Your task to perform on an android device: Search for sushi restaurants on Maps Image 0: 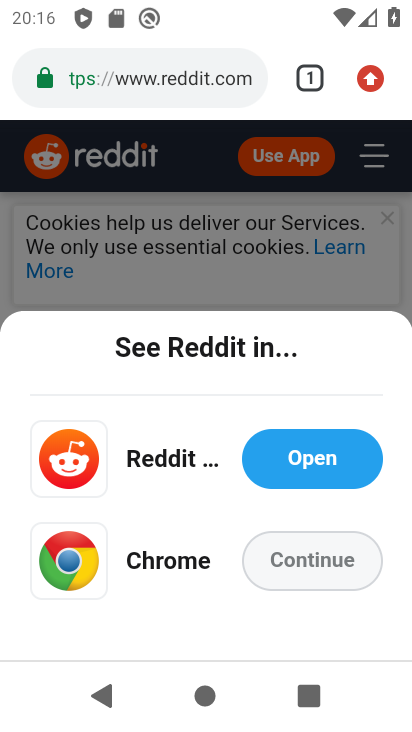
Step 0: press home button
Your task to perform on an android device: Search for sushi restaurants on Maps Image 1: 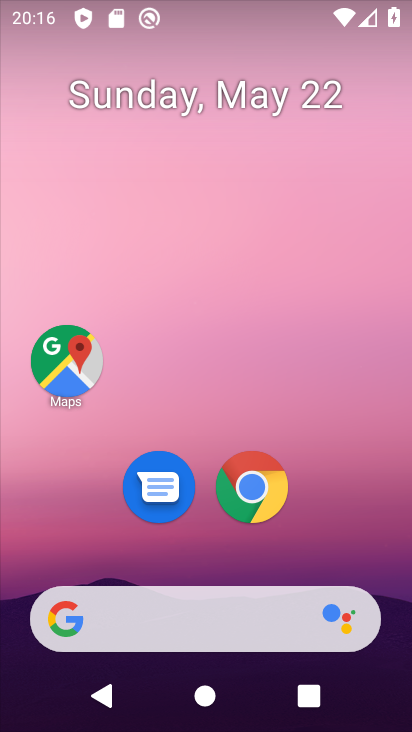
Step 1: click (69, 373)
Your task to perform on an android device: Search for sushi restaurants on Maps Image 2: 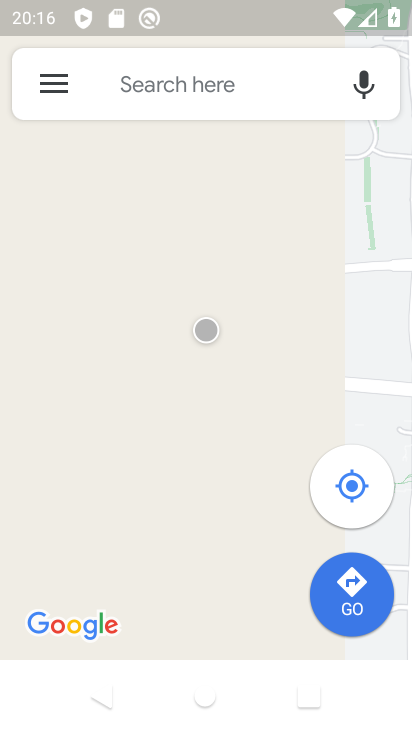
Step 2: click (141, 81)
Your task to perform on an android device: Search for sushi restaurants on Maps Image 3: 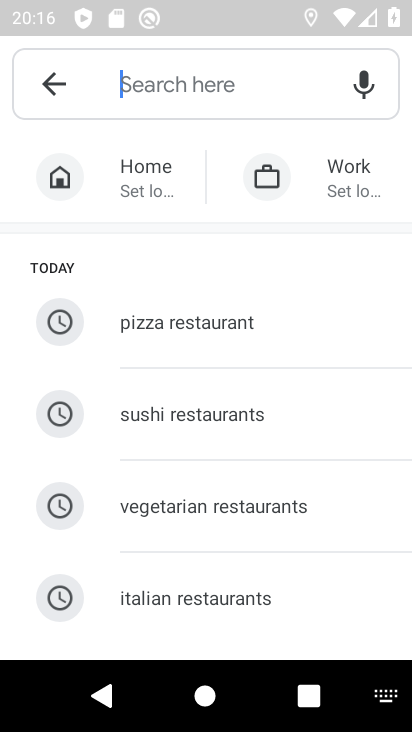
Step 3: click (98, 421)
Your task to perform on an android device: Search for sushi restaurants on Maps Image 4: 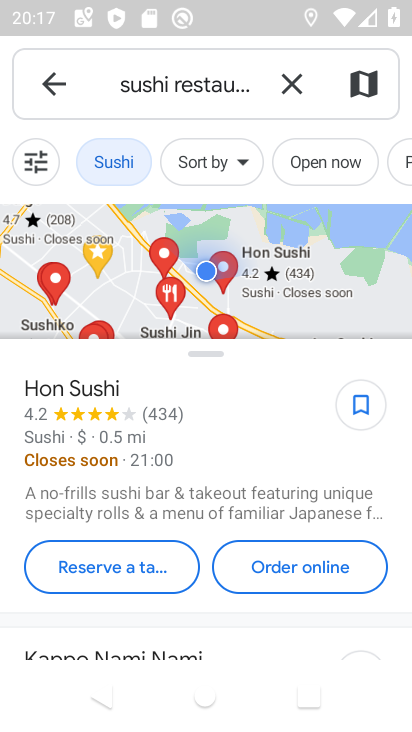
Step 4: task complete